Your task to perform on an android device: allow cookies in the chrome app Image 0: 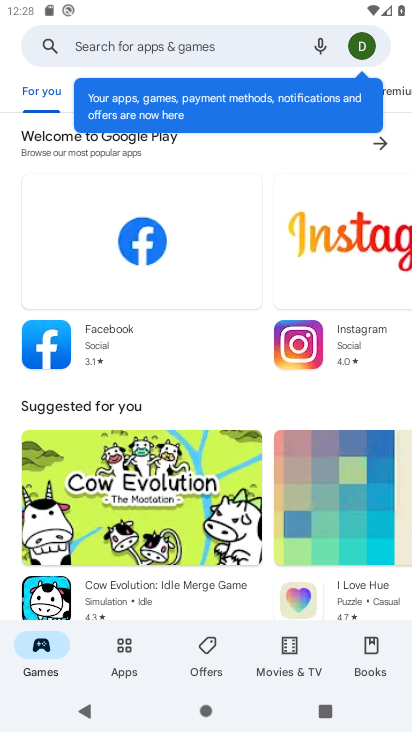
Step 0: press home button
Your task to perform on an android device: allow cookies in the chrome app Image 1: 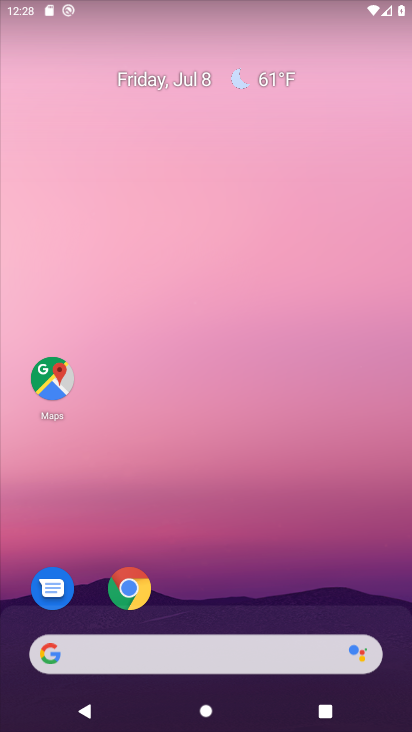
Step 1: click (132, 590)
Your task to perform on an android device: allow cookies in the chrome app Image 2: 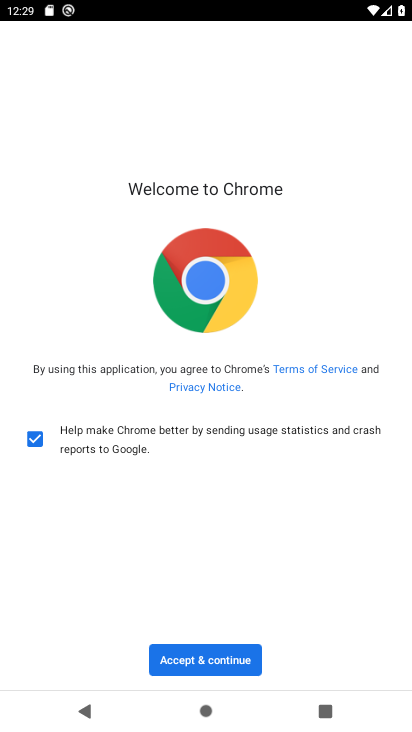
Step 2: click (196, 657)
Your task to perform on an android device: allow cookies in the chrome app Image 3: 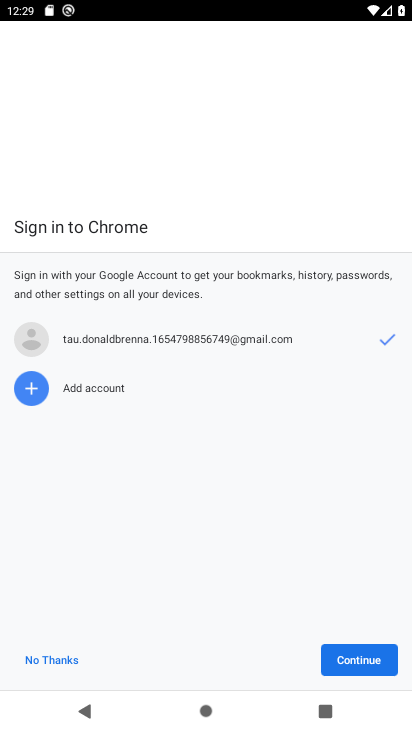
Step 3: click (371, 667)
Your task to perform on an android device: allow cookies in the chrome app Image 4: 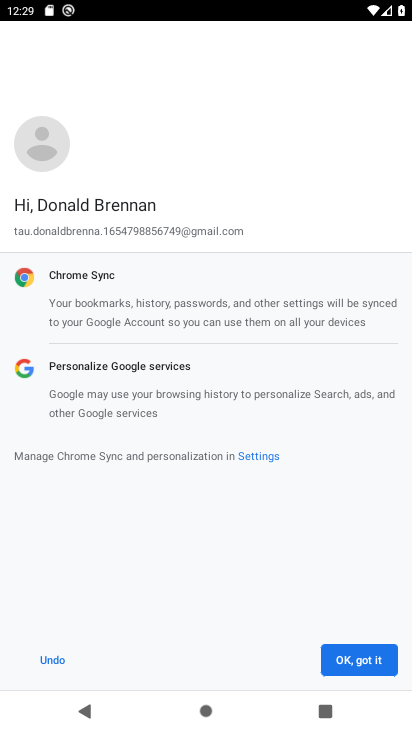
Step 4: click (372, 666)
Your task to perform on an android device: allow cookies in the chrome app Image 5: 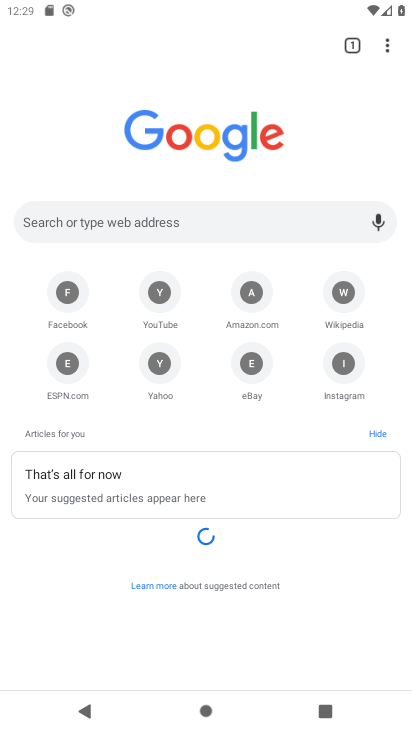
Step 5: drag from (384, 37) to (220, 374)
Your task to perform on an android device: allow cookies in the chrome app Image 6: 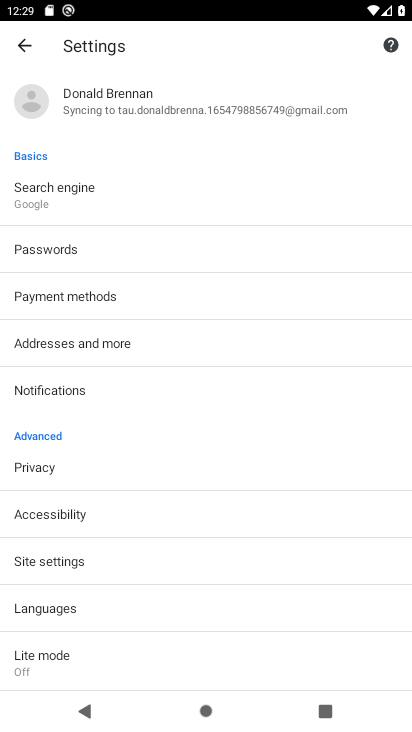
Step 6: click (63, 552)
Your task to perform on an android device: allow cookies in the chrome app Image 7: 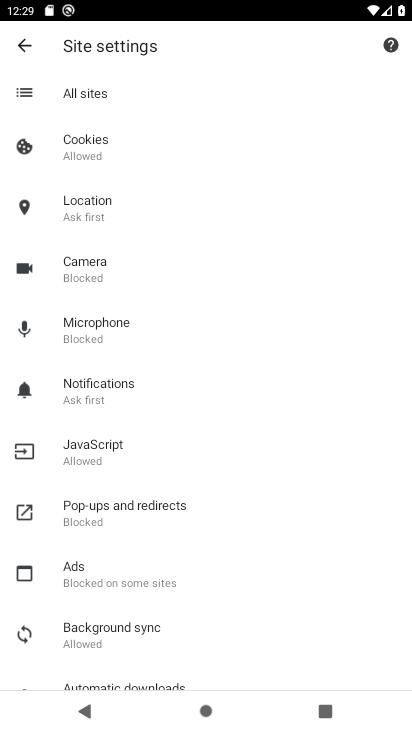
Step 7: click (77, 150)
Your task to perform on an android device: allow cookies in the chrome app Image 8: 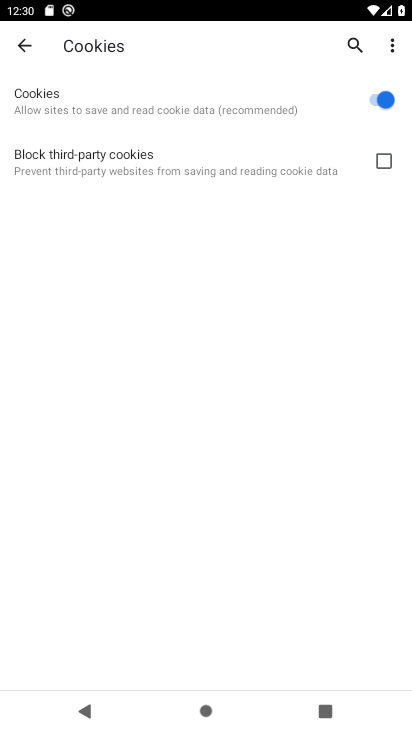
Step 8: task complete